Your task to perform on an android device: Open calendar and show me the first week of next month Image 0: 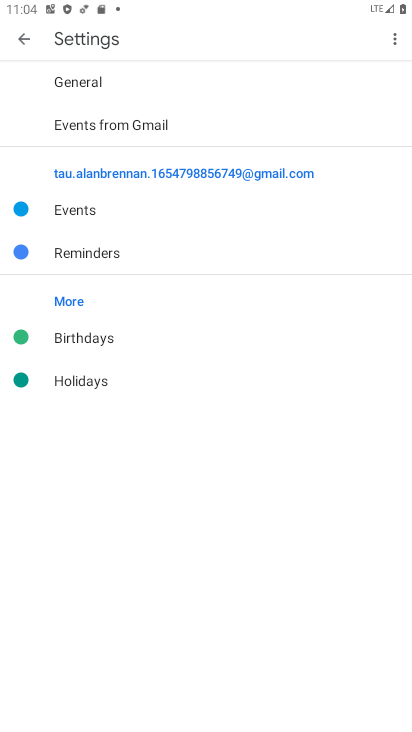
Step 0: press home button
Your task to perform on an android device: Open calendar and show me the first week of next month Image 1: 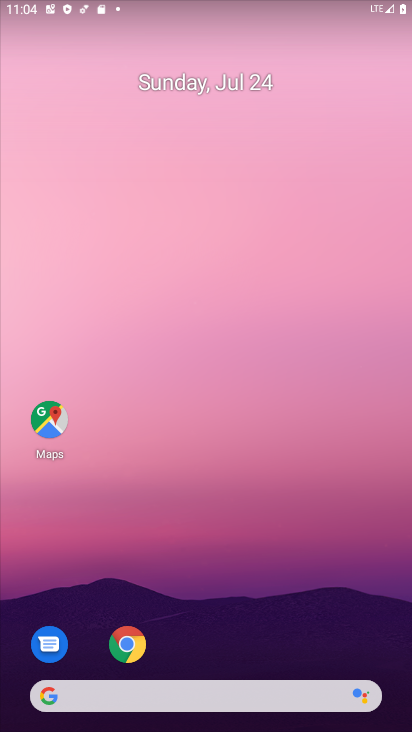
Step 1: drag from (8, 731) to (259, 68)
Your task to perform on an android device: Open calendar and show me the first week of next month Image 2: 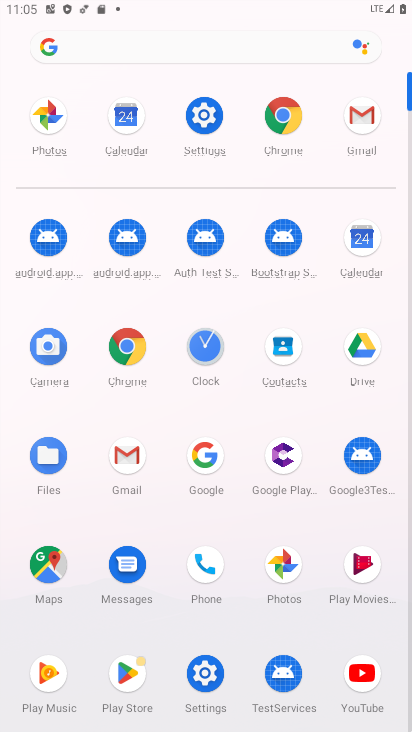
Step 2: click (348, 239)
Your task to perform on an android device: Open calendar and show me the first week of next month Image 3: 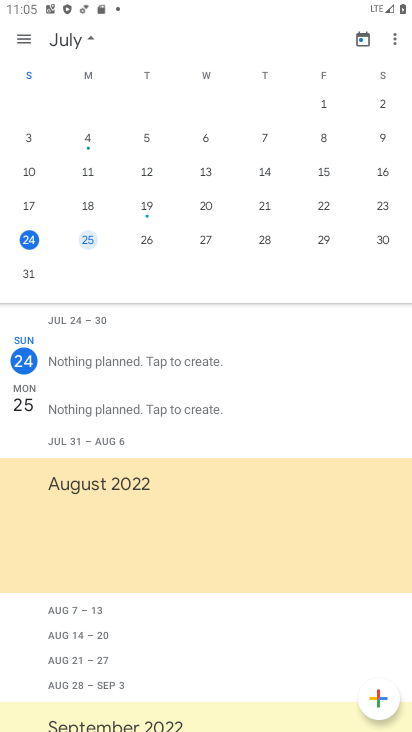
Step 3: task complete